Your task to perform on an android device: allow cookies in the chrome app Image 0: 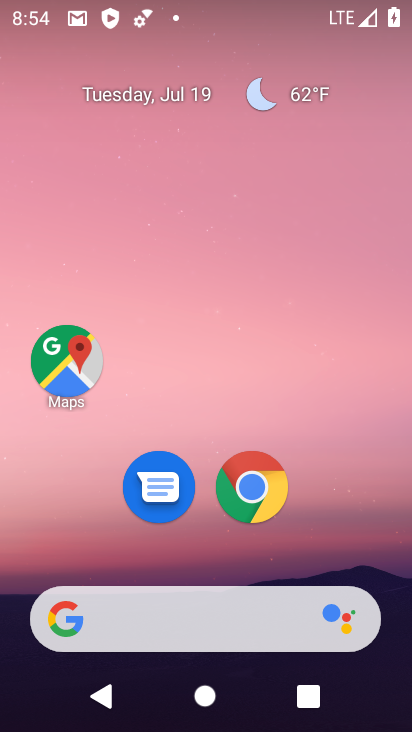
Step 0: click (268, 489)
Your task to perform on an android device: allow cookies in the chrome app Image 1: 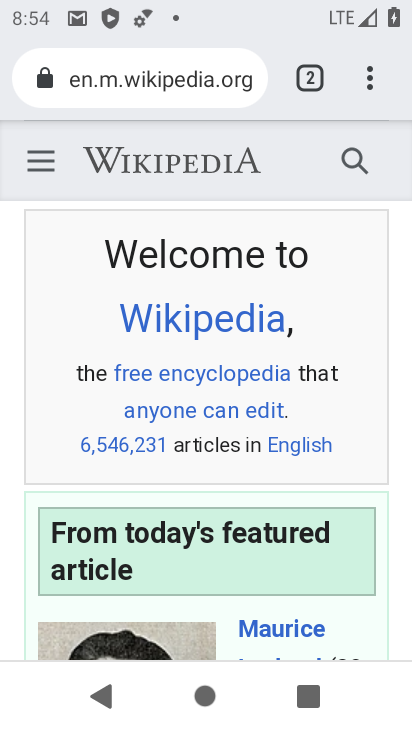
Step 1: drag from (366, 70) to (98, 532)
Your task to perform on an android device: allow cookies in the chrome app Image 2: 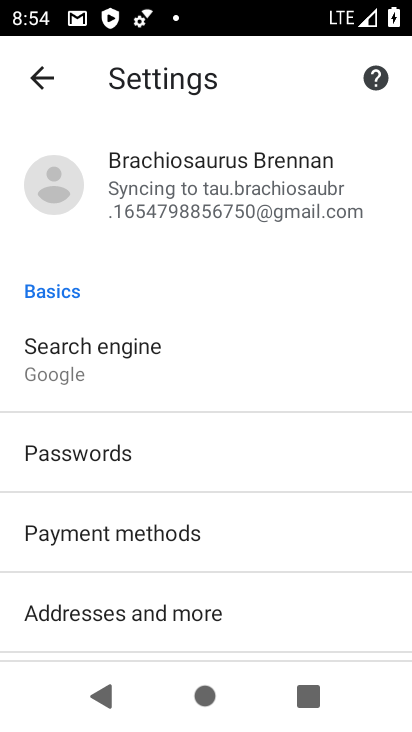
Step 2: drag from (158, 611) to (236, 106)
Your task to perform on an android device: allow cookies in the chrome app Image 3: 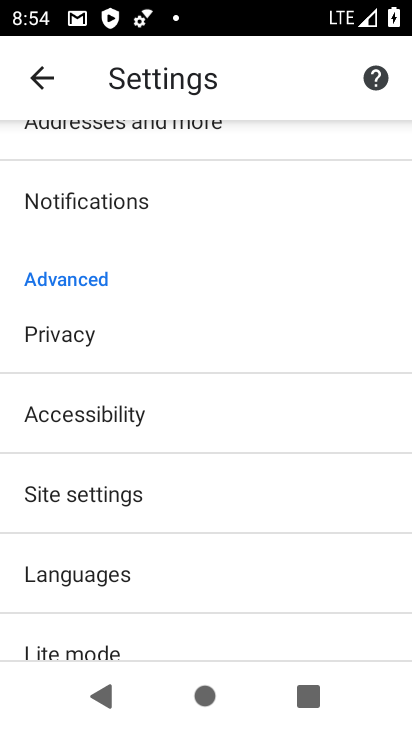
Step 3: click (106, 503)
Your task to perform on an android device: allow cookies in the chrome app Image 4: 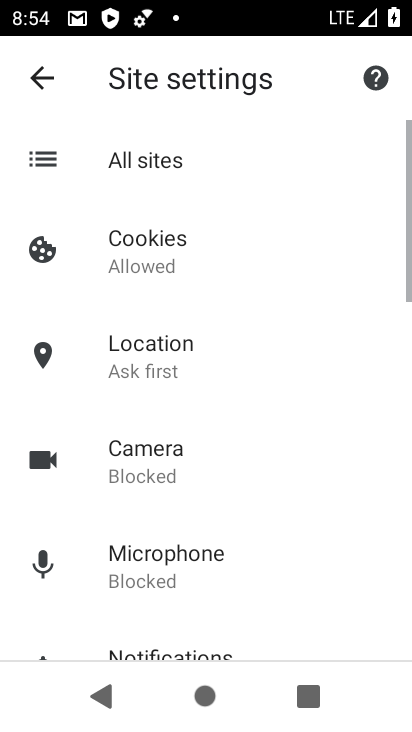
Step 4: click (179, 218)
Your task to perform on an android device: allow cookies in the chrome app Image 5: 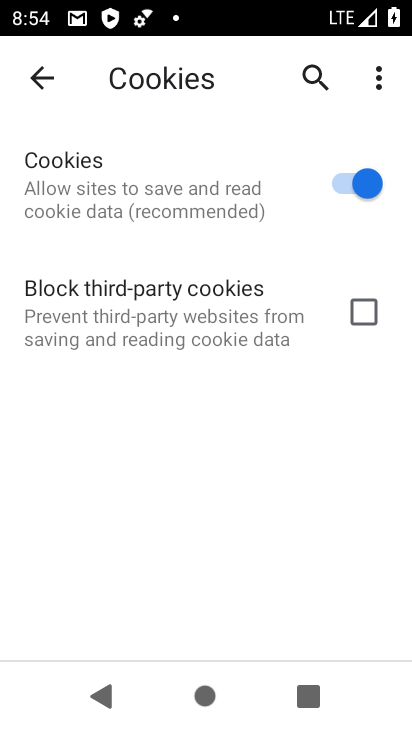
Step 5: task complete